Your task to perform on an android device: open chrome privacy settings Image 0: 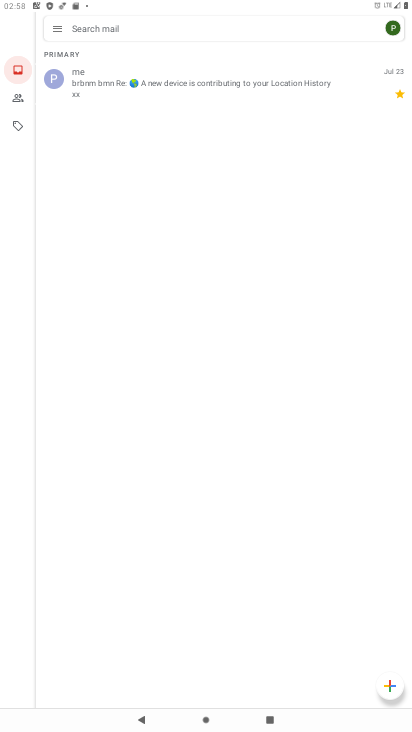
Step 0: press home button
Your task to perform on an android device: open chrome privacy settings Image 1: 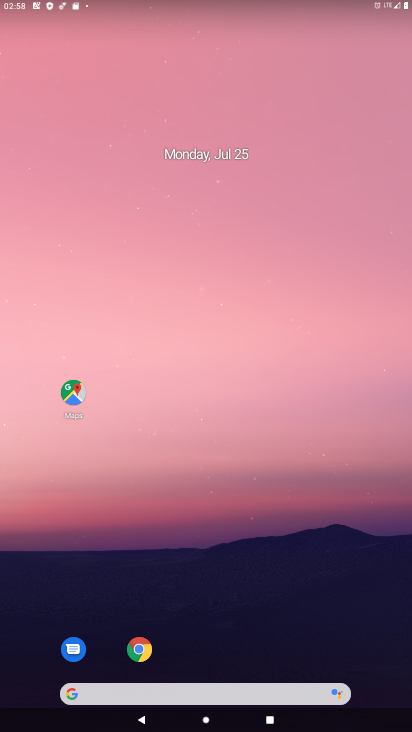
Step 1: click (141, 651)
Your task to perform on an android device: open chrome privacy settings Image 2: 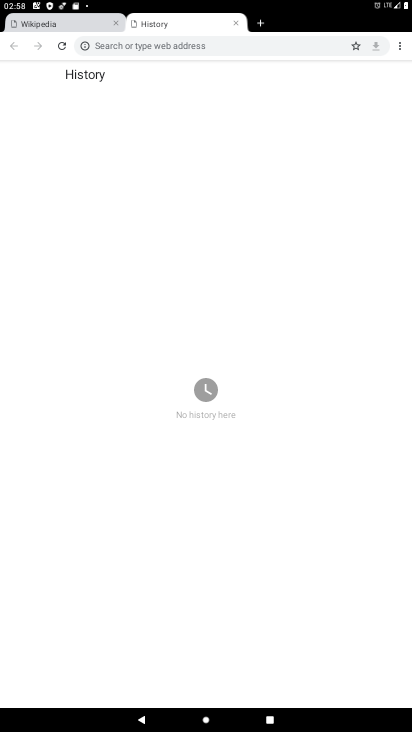
Step 2: click (397, 48)
Your task to perform on an android device: open chrome privacy settings Image 3: 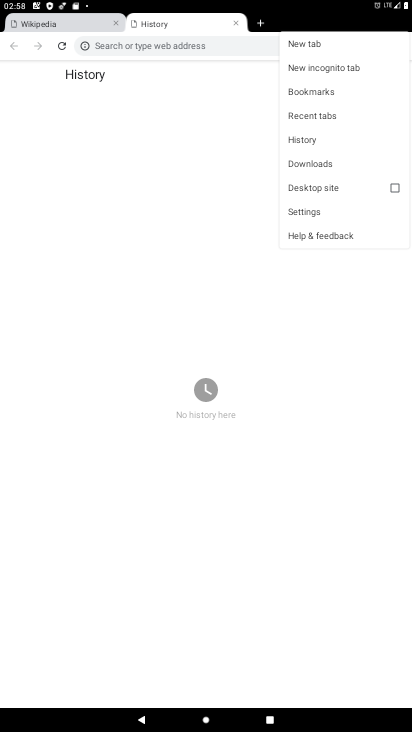
Step 3: click (303, 207)
Your task to perform on an android device: open chrome privacy settings Image 4: 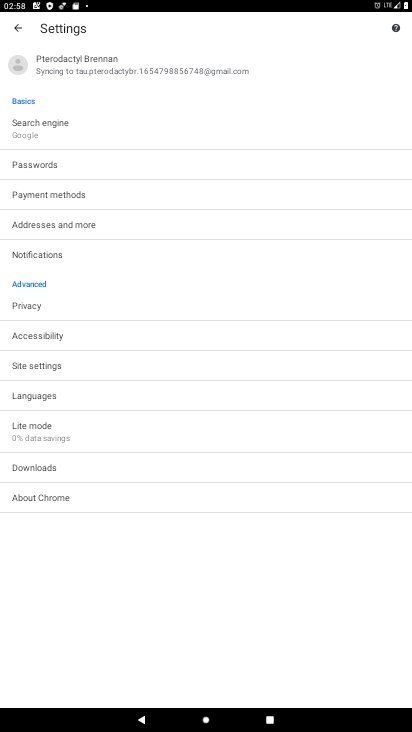
Step 4: click (29, 307)
Your task to perform on an android device: open chrome privacy settings Image 5: 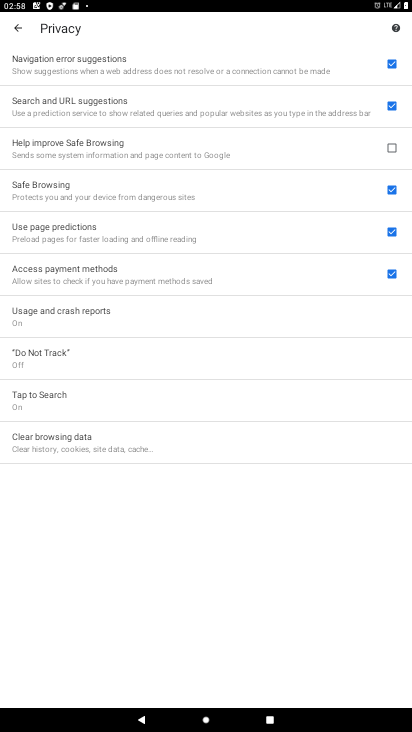
Step 5: task complete